Your task to perform on an android device: visit the assistant section in the google photos Image 0: 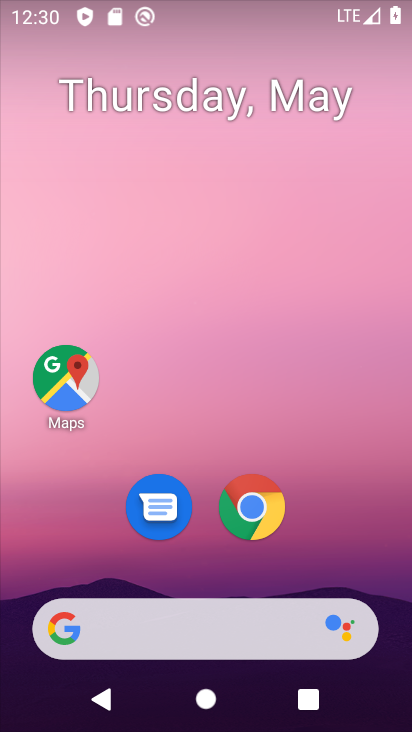
Step 0: drag from (207, 572) to (228, 184)
Your task to perform on an android device: visit the assistant section in the google photos Image 1: 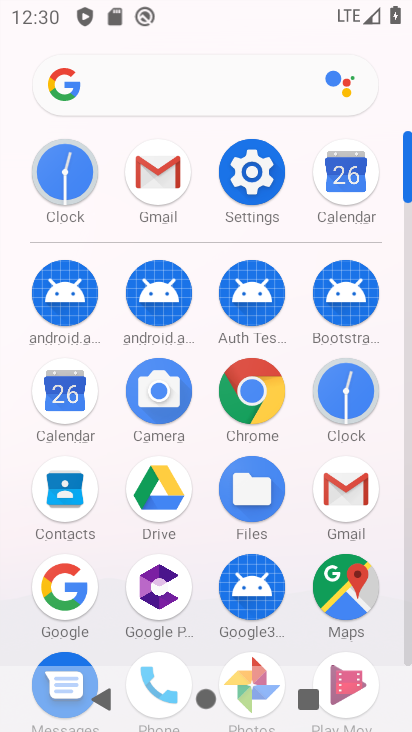
Step 1: drag from (322, 300) to (400, 326)
Your task to perform on an android device: visit the assistant section in the google photos Image 2: 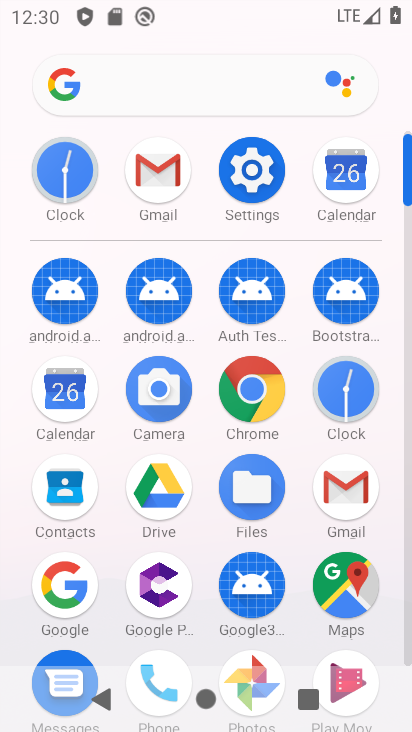
Step 2: drag from (191, 646) to (198, 416)
Your task to perform on an android device: visit the assistant section in the google photos Image 3: 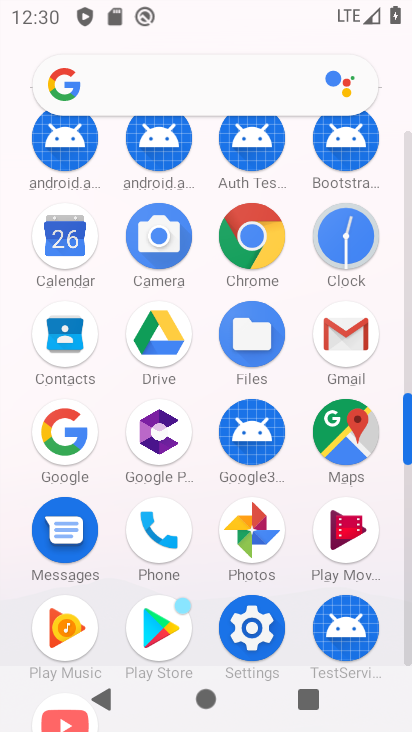
Step 3: click (236, 528)
Your task to perform on an android device: visit the assistant section in the google photos Image 4: 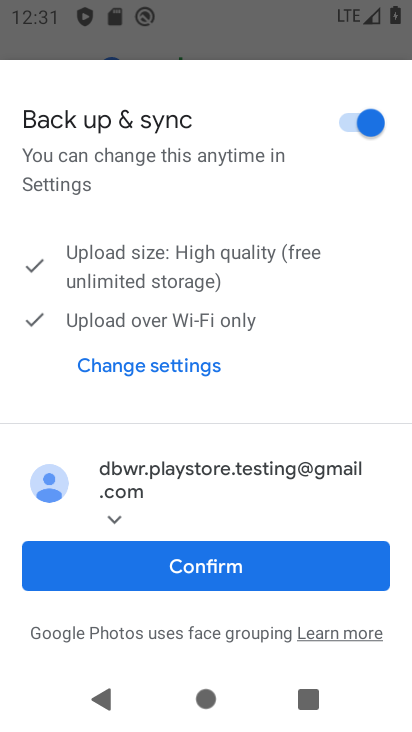
Step 4: click (321, 570)
Your task to perform on an android device: visit the assistant section in the google photos Image 5: 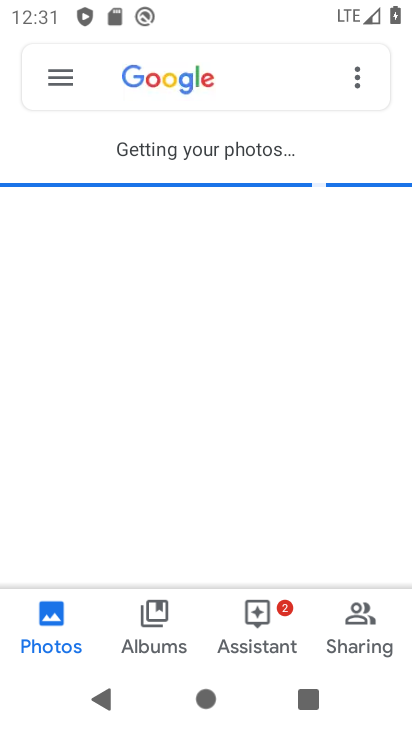
Step 5: click (259, 609)
Your task to perform on an android device: visit the assistant section in the google photos Image 6: 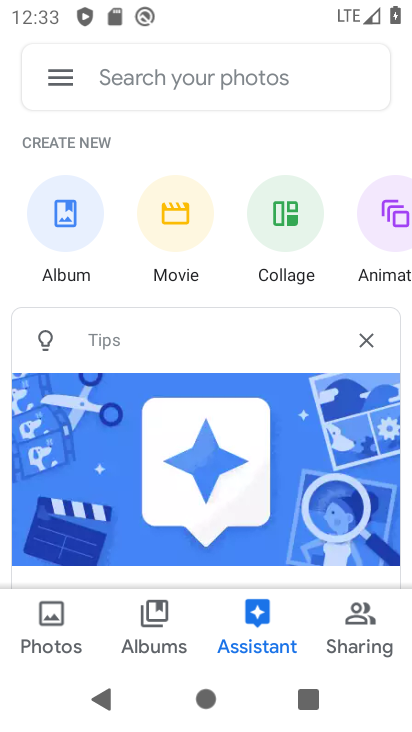
Step 6: task complete